Your task to perform on an android device: What's the weather going to be tomorrow? Image 0: 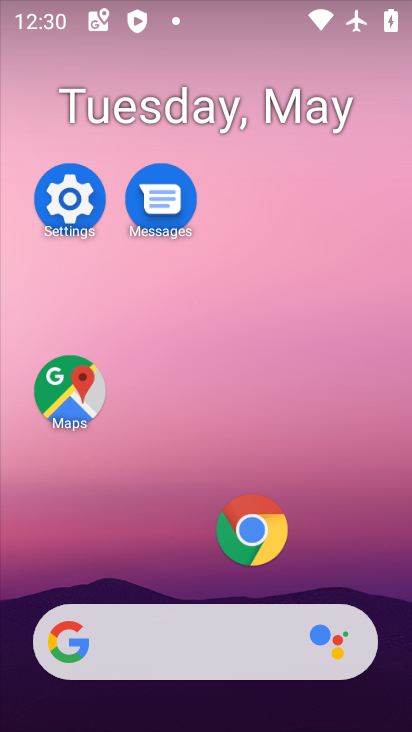
Step 0: drag from (151, 558) to (288, 165)
Your task to perform on an android device: What's the weather going to be tomorrow? Image 1: 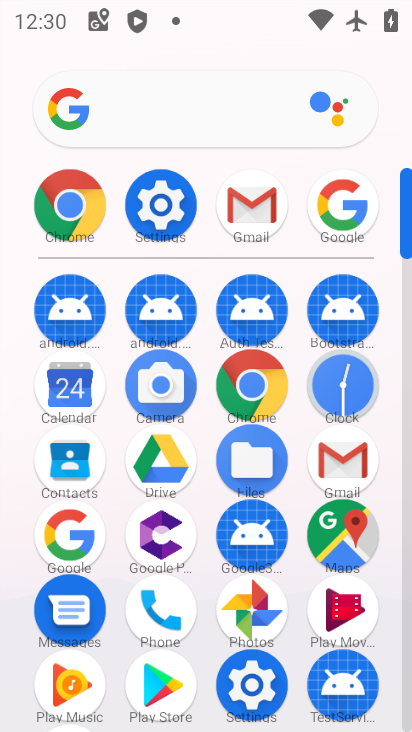
Step 1: click (55, 547)
Your task to perform on an android device: What's the weather going to be tomorrow? Image 2: 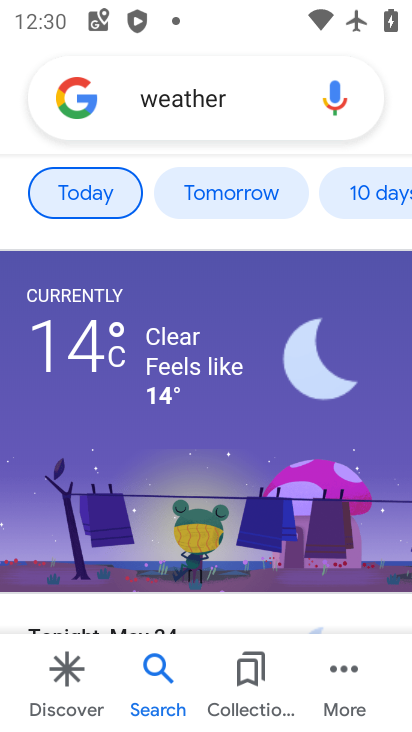
Step 2: click (254, 201)
Your task to perform on an android device: What's the weather going to be tomorrow? Image 3: 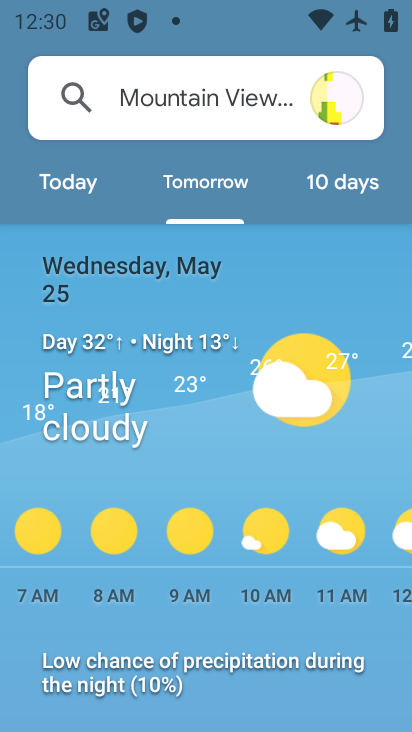
Step 3: task complete